Your task to perform on an android device: add a contact in the contacts app Image 0: 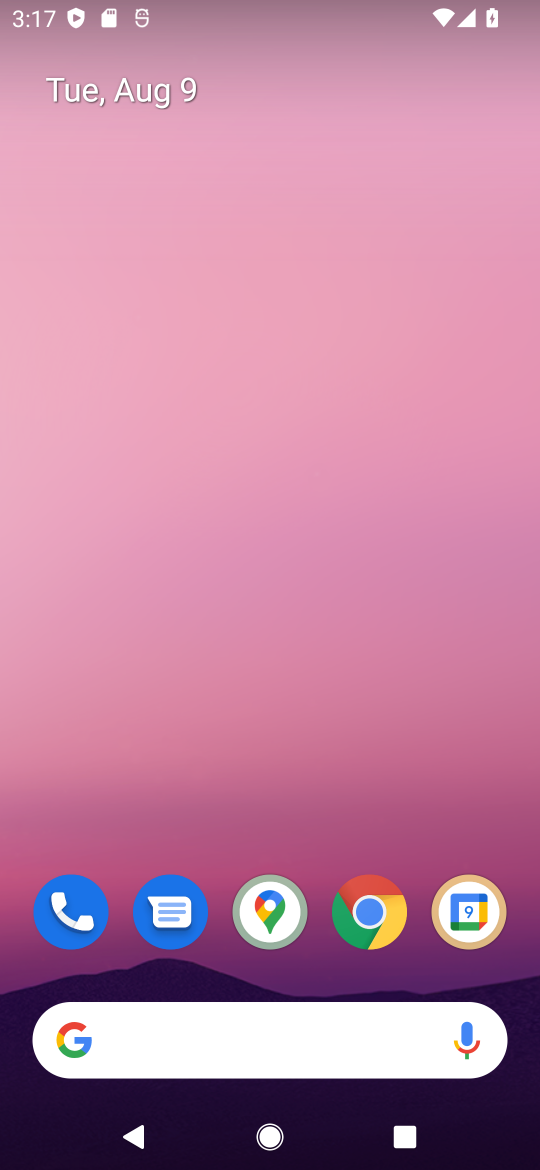
Step 0: drag from (315, 720) to (508, 59)
Your task to perform on an android device: add a contact in the contacts app Image 1: 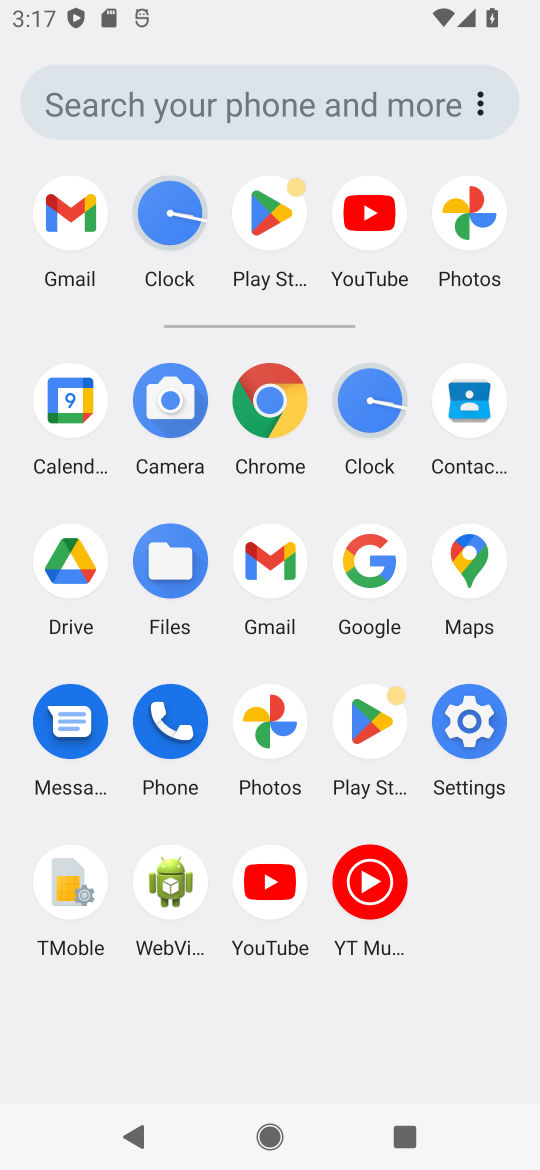
Step 1: click (478, 392)
Your task to perform on an android device: add a contact in the contacts app Image 2: 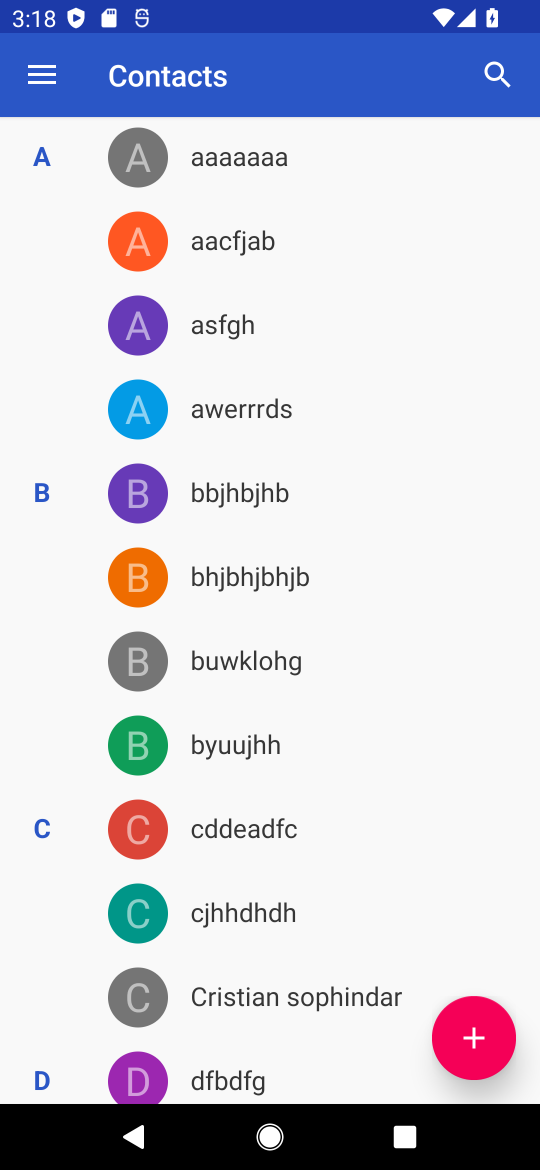
Step 2: click (473, 1041)
Your task to perform on an android device: add a contact in the contacts app Image 3: 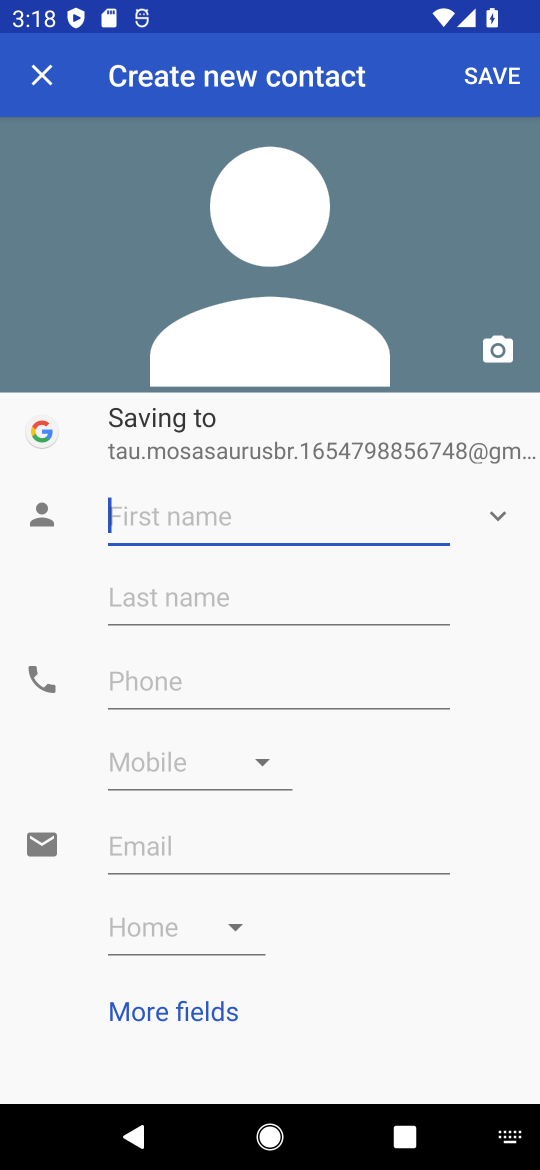
Step 3: type "kjhgfdsdfg"
Your task to perform on an android device: add a contact in the contacts app Image 4: 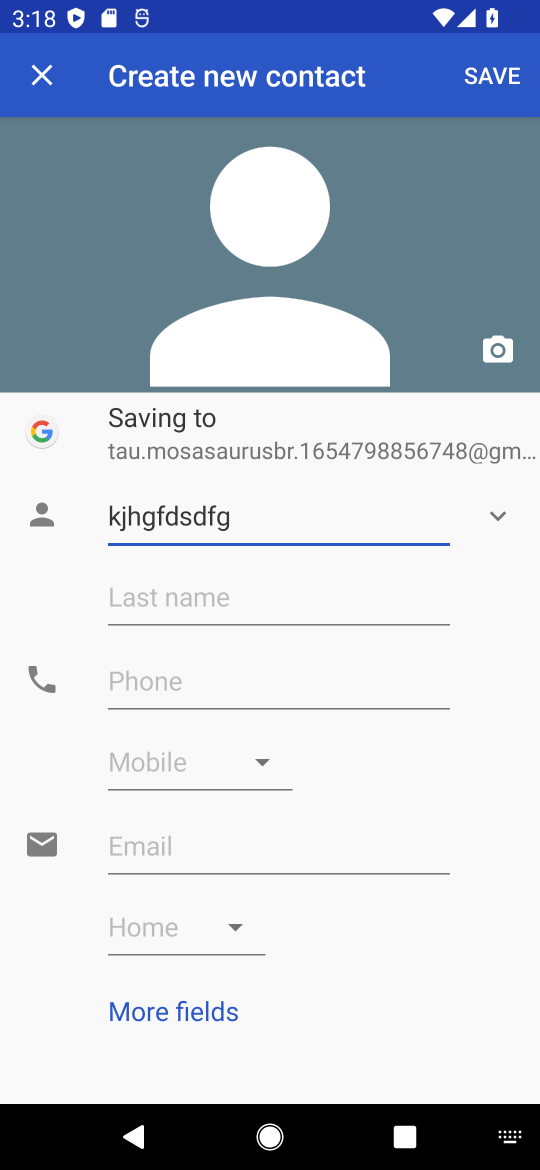
Step 4: click (216, 665)
Your task to perform on an android device: add a contact in the contacts app Image 5: 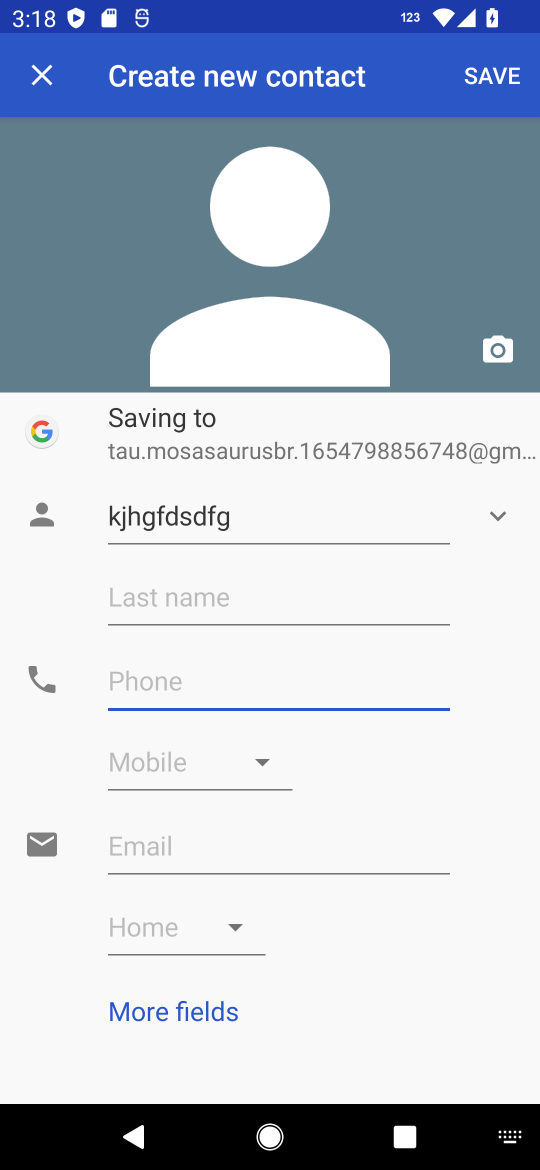
Step 5: type "9876543"
Your task to perform on an android device: add a contact in the contacts app Image 6: 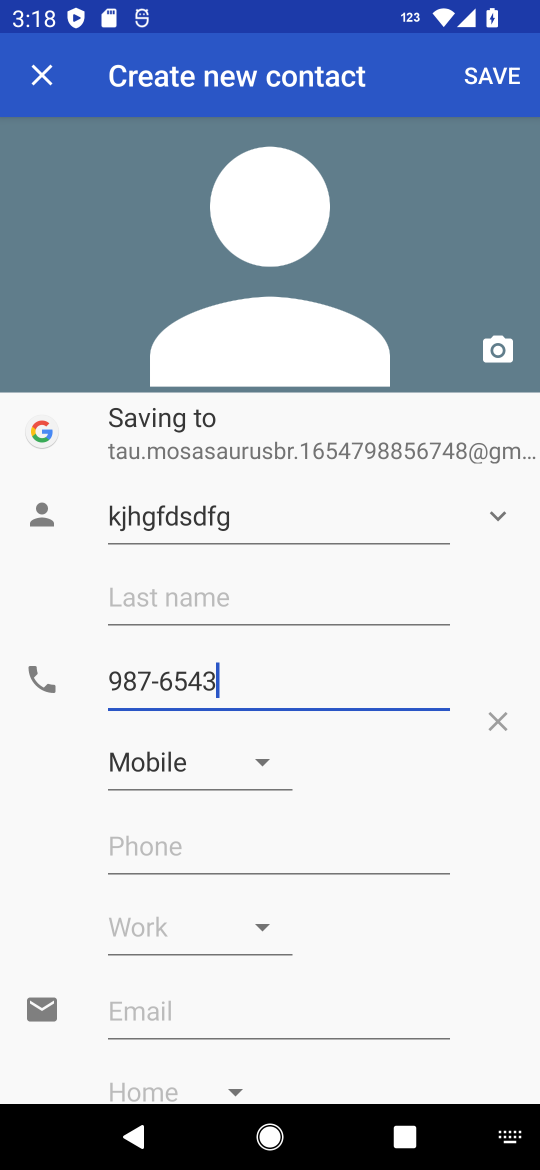
Step 6: click (485, 61)
Your task to perform on an android device: add a contact in the contacts app Image 7: 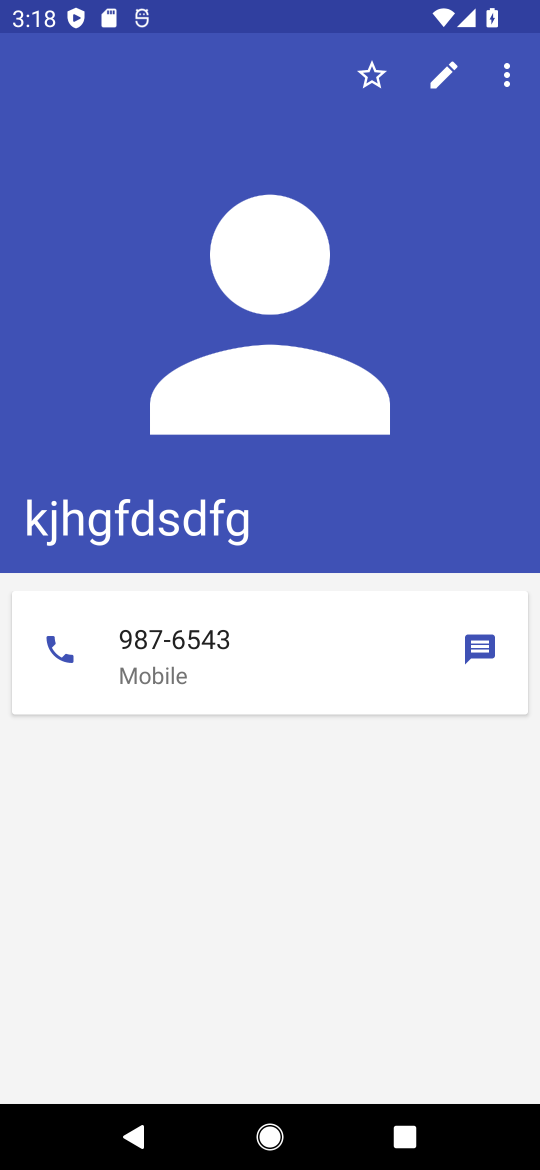
Step 7: task complete